Your task to perform on an android device: check android version Image 0: 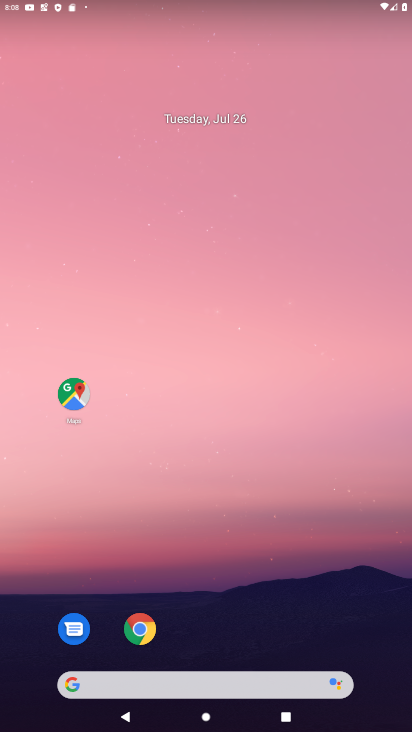
Step 0: press home button
Your task to perform on an android device: check android version Image 1: 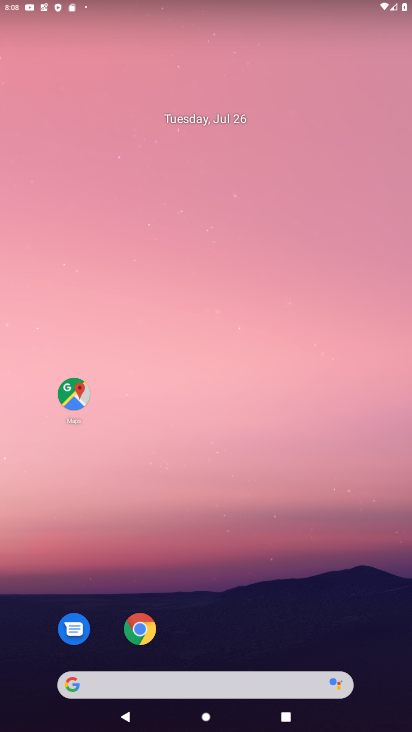
Step 1: drag from (214, 650) to (209, 54)
Your task to perform on an android device: check android version Image 2: 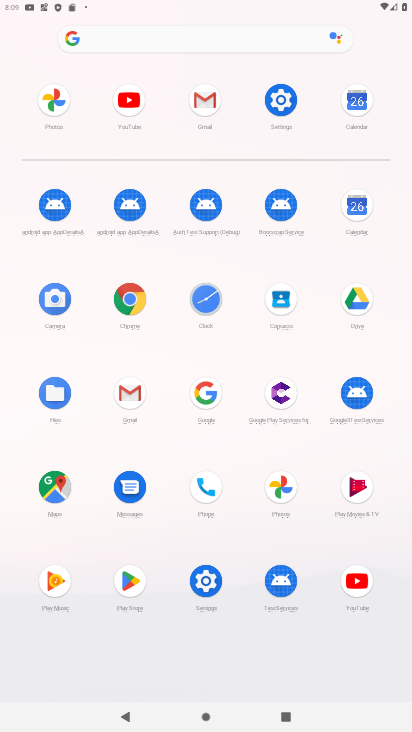
Step 2: click (202, 574)
Your task to perform on an android device: check android version Image 3: 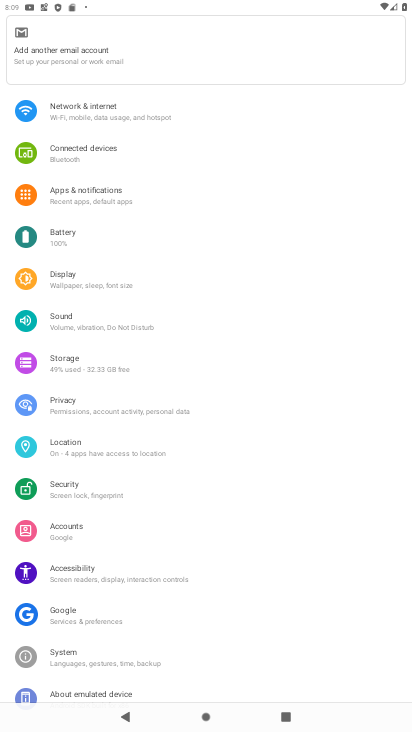
Step 3: drag from (163, 668) to (173, 249)
Your task to perform on an android device: check android version Image 4: 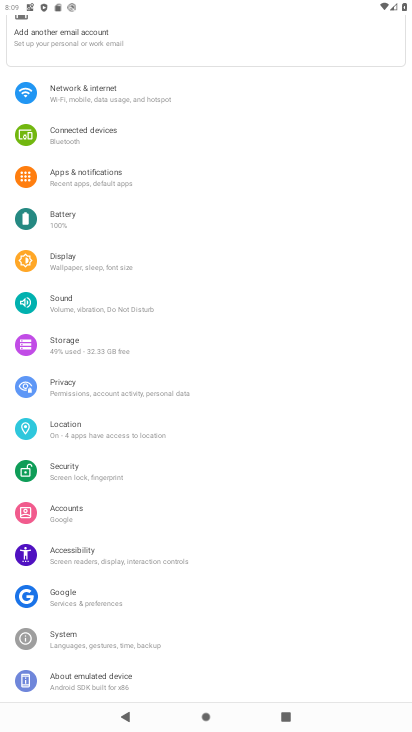
Step 4: click (133, 686)
Your task to perform on an android device: check android version Image 5: 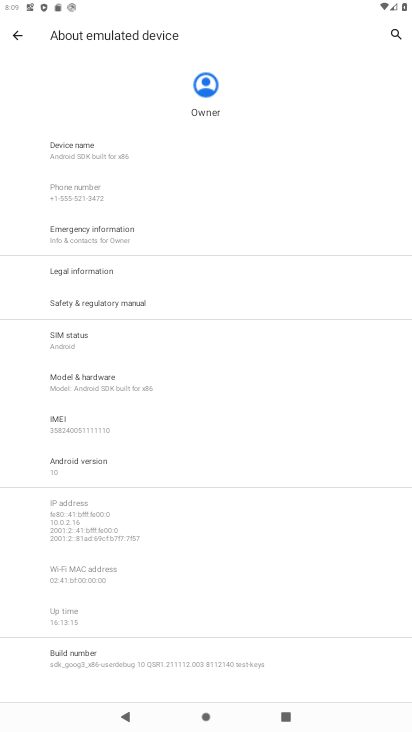
Step 5: click (102, 466)
Your task to perform on an android device: check android version Image 6: 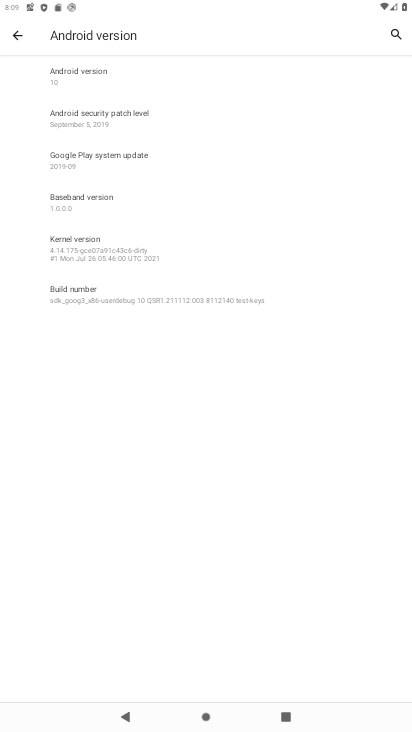
Step 6: task complete